Your task to perform on an android device: Open Yahoo.com Image 0: 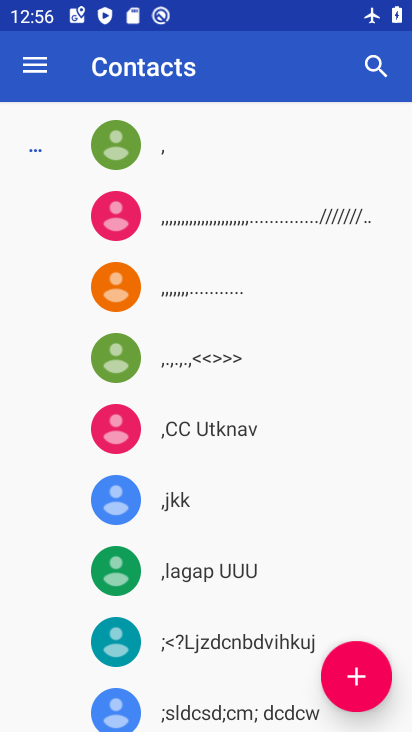
Step 0: press home button
Your task to perform on an android device: Open Yahoo.com Image 1: 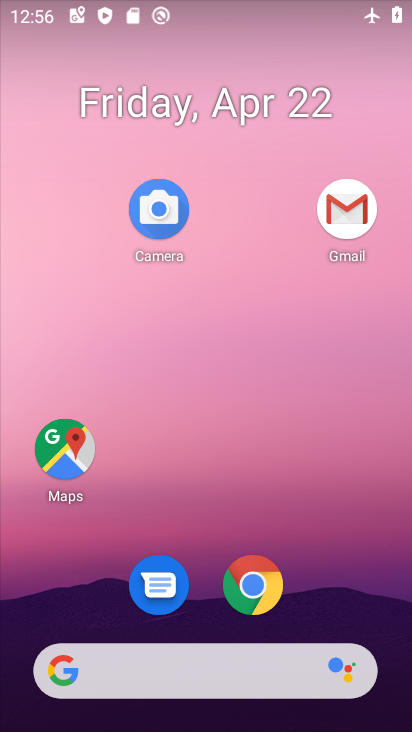
Step 1: click (248, 664)
Your task to perform on an android device: Open Yahoo.com Image 2: 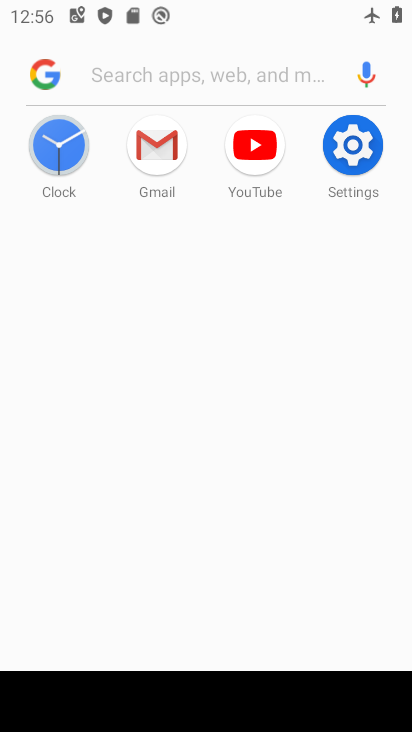
Step 2: type "yahoo.com"
Your task to perform on an android device: Open Yahoo.com Image 3: 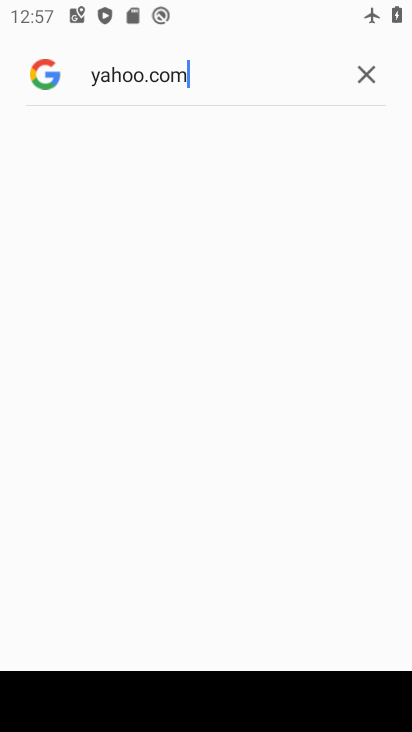
Step 3: task complete